Your task to perform on an android device: What's on my calendar tomorrow? Image 0: 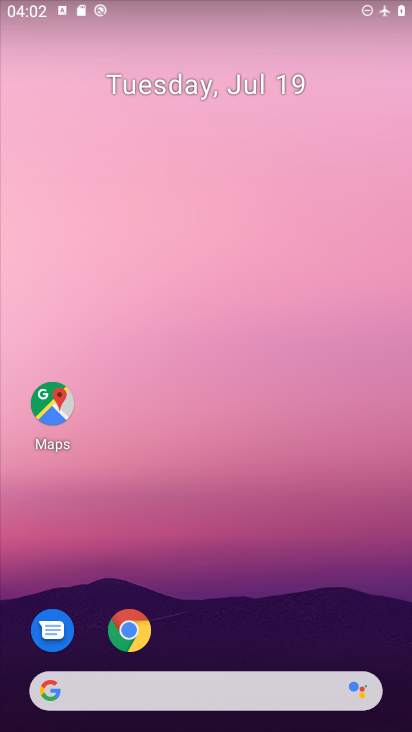
Step 0: drag from (375, 658) to (339, 89)
Your task to perform on an android device: What's on my calendar tomorrow? Image 1: 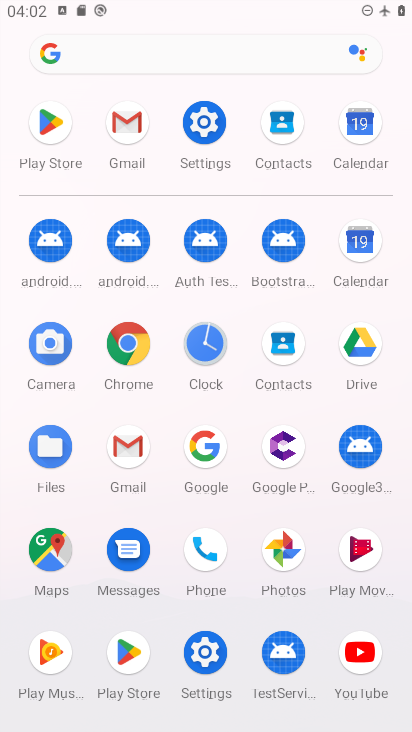
Step 1: click (364, 251)
Your task to perform on an android device: What's on my calendar tomorrow? Image 2: 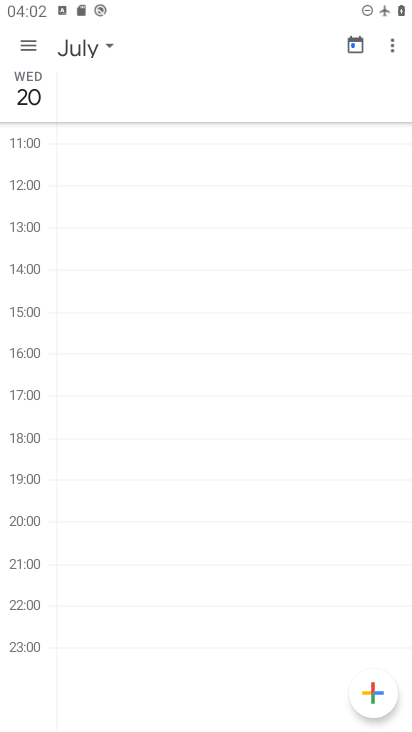
Step 2: task complete